Your task to perform on an android device: Open my contact list Image 0: 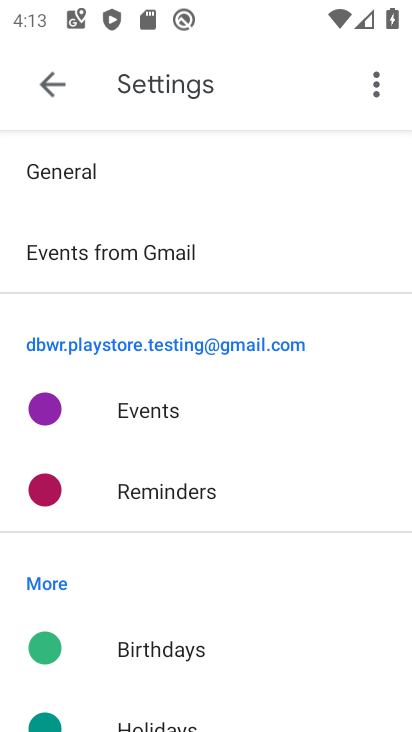
Step 0: press home button
Your task to perform on an android device: Open my contact list Image 1: 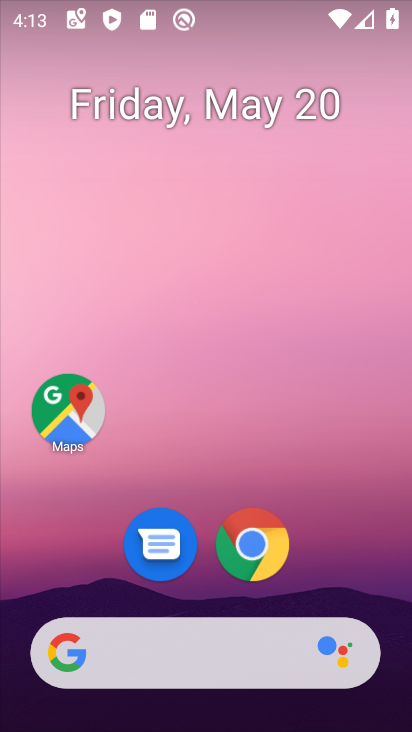
Step 1: drag from (328, 596) to (343, 16)
Your task to perform on an android device: Open my contact list Image 2: 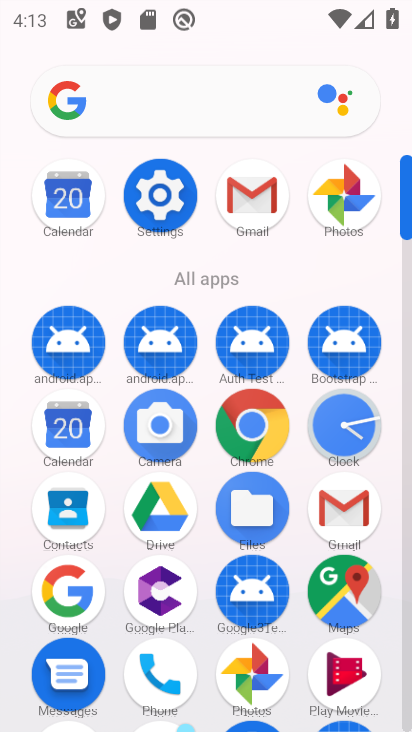
Step 2: click (67, 518)
Your task to perform on an android device: Open my contact list Image 3: 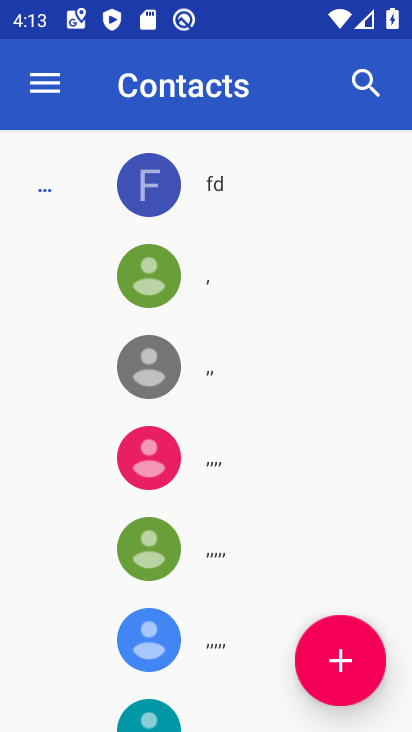
Step 3: task complete